Your task to perform on an android device: delete a single message in the gmail app Image 0: 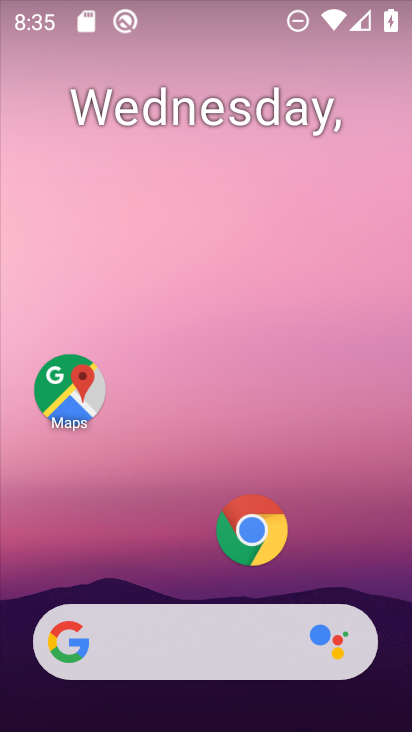
Step 0: drag from (156, 581) to (254, 128)
Your task to perform on an android device: delete a single message in the gmail app Image 1: 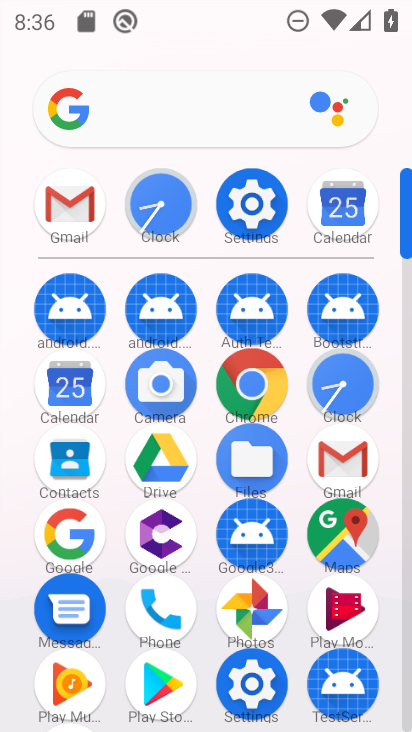
Step 1: click (81, 209)
Your task to perform on an android device: delete a single message in the gmail app Image 2: 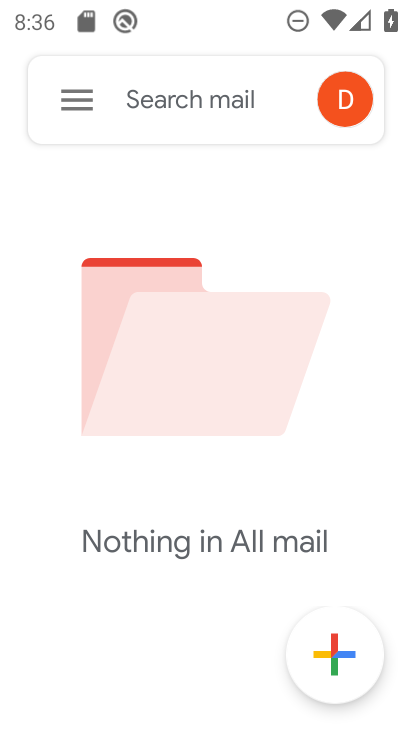
Step 2: task complete